Your task to perform on an android device: turn off priority inbox in the gmail app Image 0: 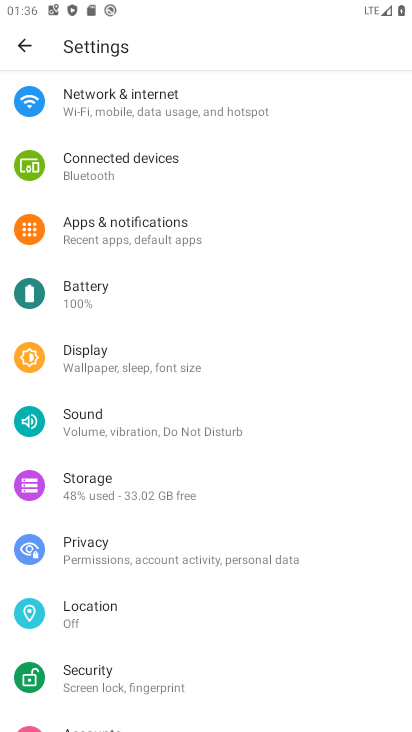
Step 0: press home button
Your task to perform on an android device: turn off priority inbox in the gmail app Image 1: 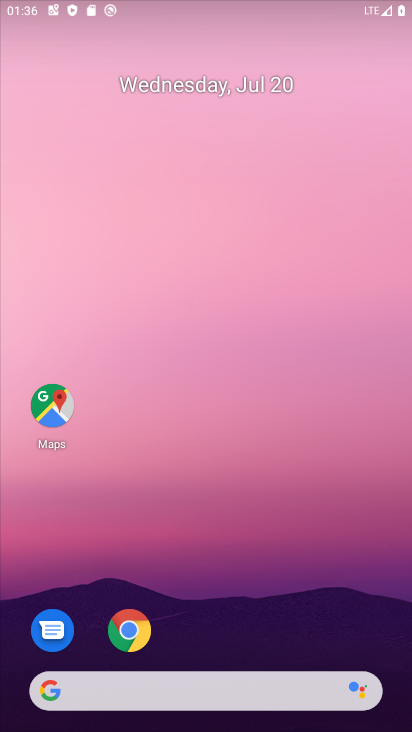
Step 1: drag from (310, 550) to (213, 0)
Your task to perform on an android device: turn off priority inbox in the gmail app Image 2: 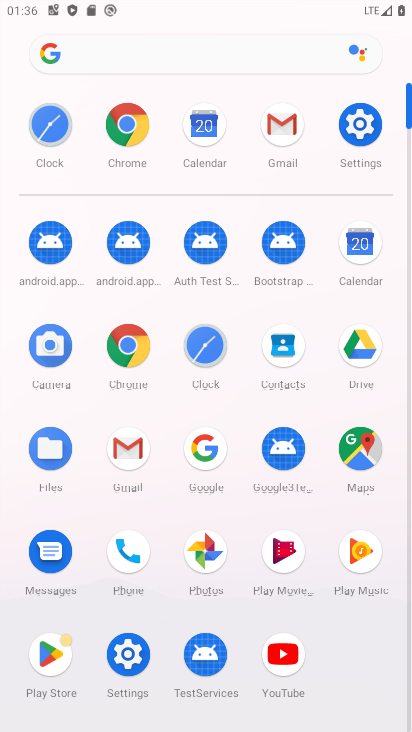
Step 2: click (264, 130)
Your task to perform on an android device: turn off priority inbox in the gmail app Image 3: 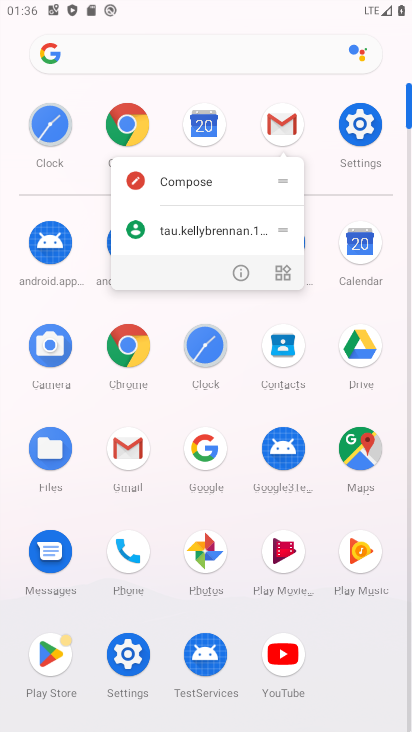
Step 3: click (275, 129)
Your task to perform on an android device: turn off priority inbox in the gmail app Image 4: 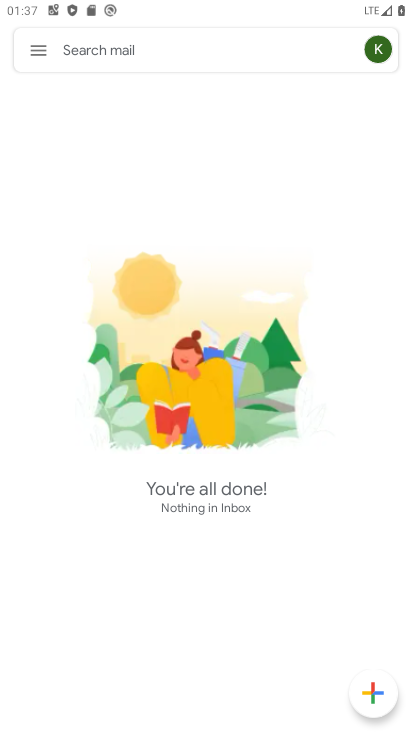
Step 4: click (34, 52)
Your task to perform on an android device: turn off priority inbox in the gmail app Image 5: 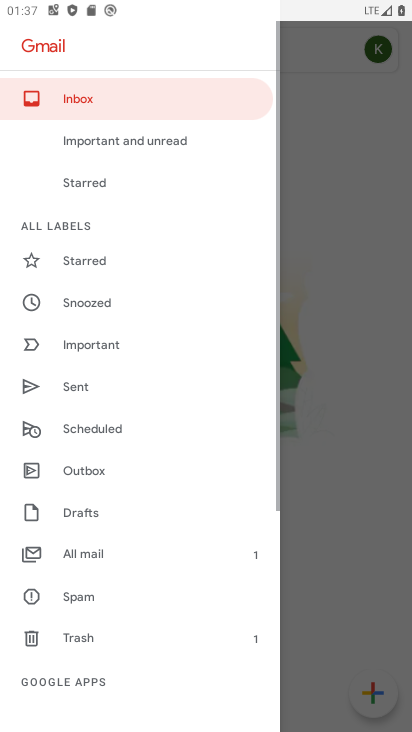
Step 5: drag from (48, 561) to (129, 60)
Your task to perform on an android device: turn off priority inbox in the gmail app Image 6: 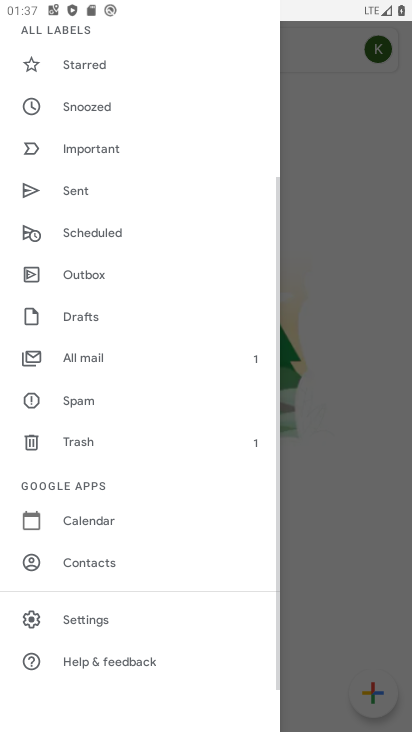
Step 6: click (79, 623)
Your task to perform on an android device: turn off priority inbox in the gmail app Image 7: 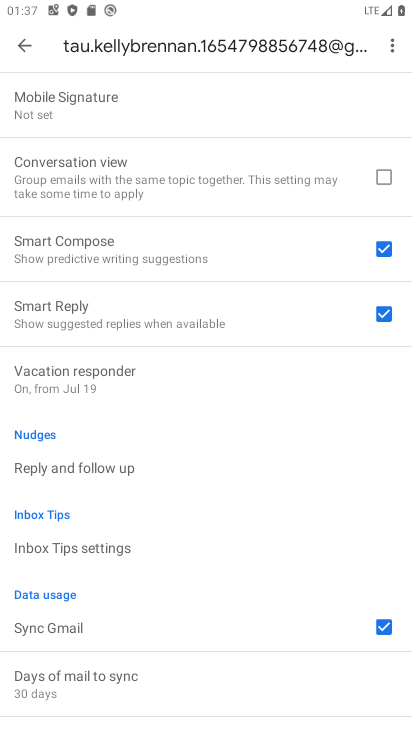
Step 7: drag from (217, 512) to (234, 37)
Your task to perform on an android device: turn off priority inbox in the gmail app Image 8: 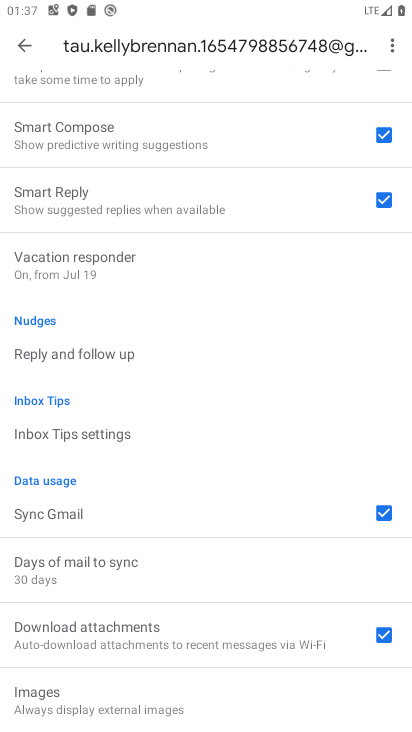
Step 8: drag from (217, 124) to (183, 703)
Your task to perform on an android device: turn off priority inbox in the gmail app Image 9: 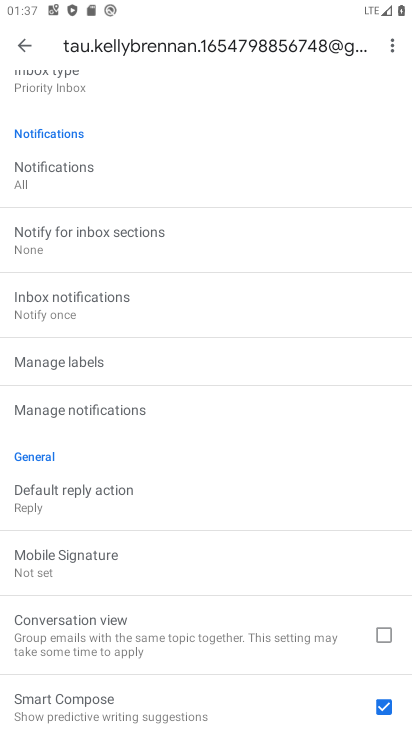
Step 9: drag from (107, 165) to (73, 434)
Your task to perform on an android device: turn off priority inbox in the gmail app Image 10: 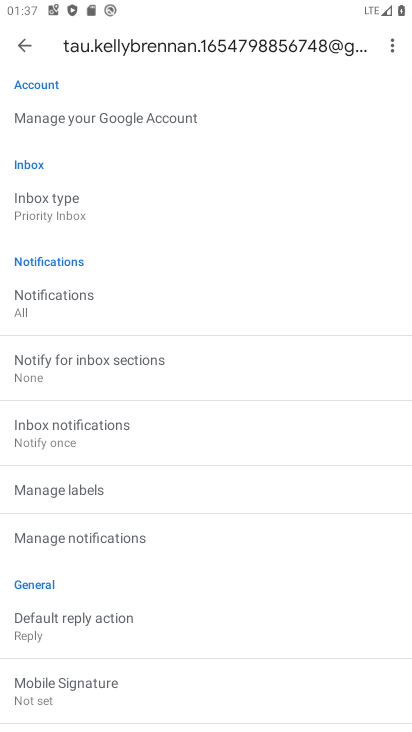
Step 10: click (62, 233)
Your task to perform on an android device: turn off priority inbox in the gmail app Image 11: 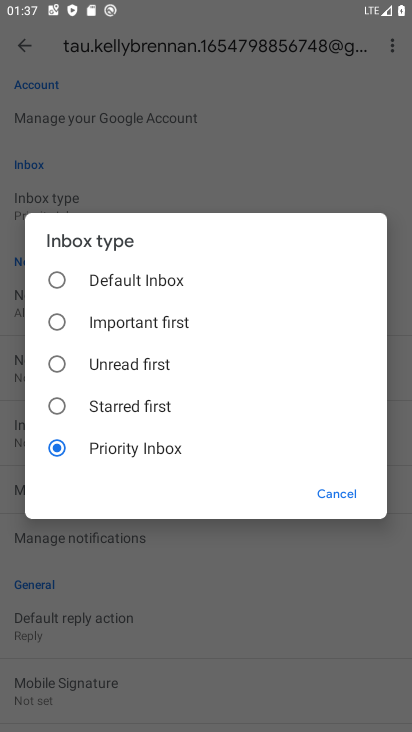
Step 11: task complete